Your task to perform on an android device: turn off translation in the chrome app Image 0: 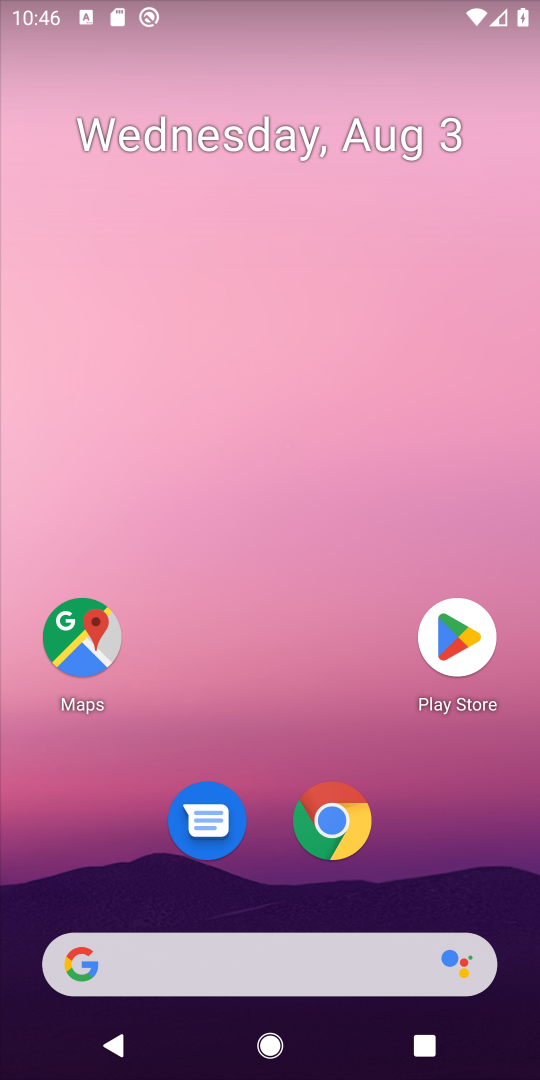
Step 0: drag from (304, 973) to (296, 154)
Your task to perform on an android device: turn off translation in the chrome app Image 1: 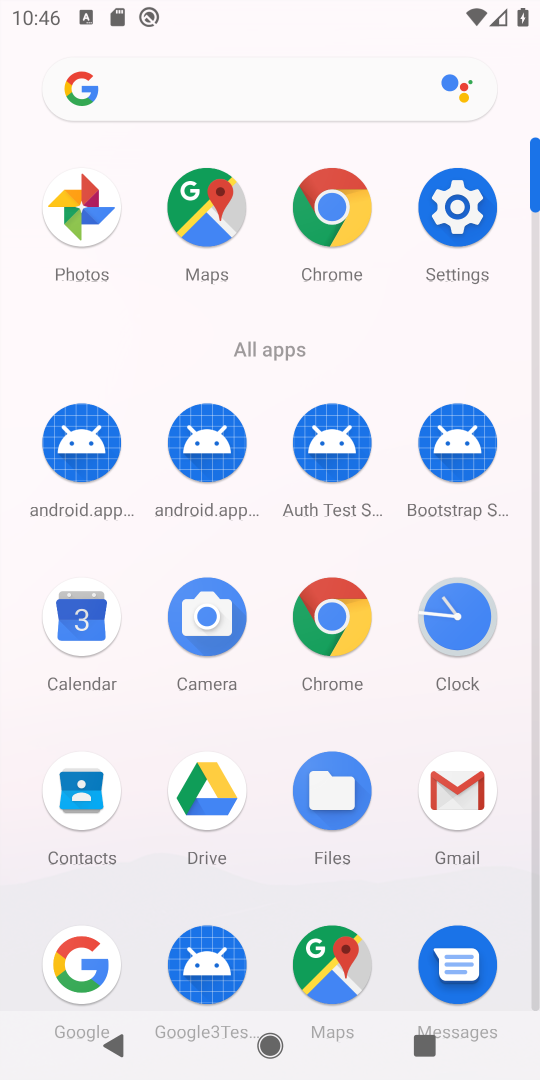
Step 1: click (320, 625)
Your task to perform on an android device: turn off translation in the chrome app Image 2: 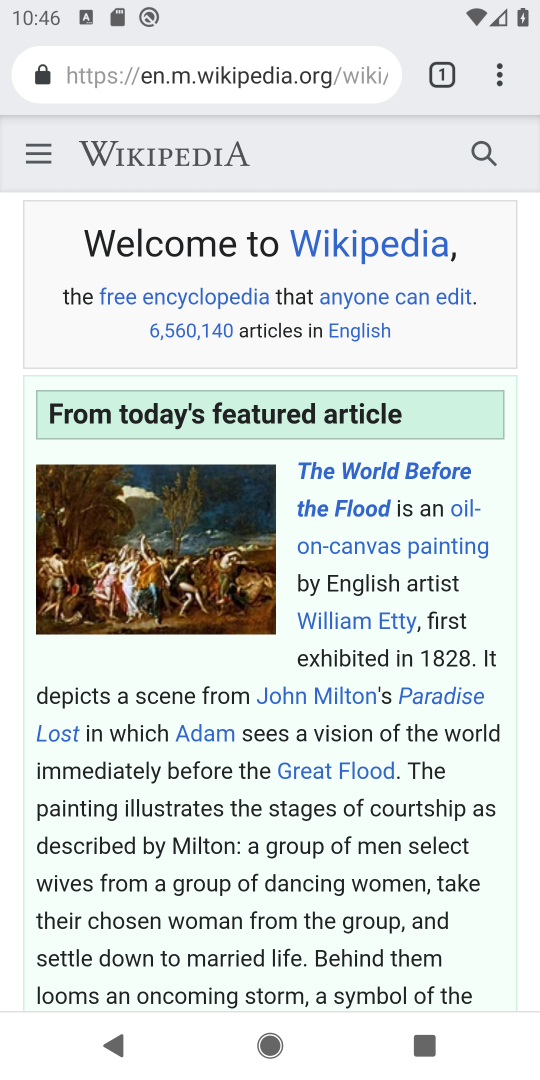
Step 2: click (491, 62)
Your task to perform on an android device: turn off translation in the chrome app Image 3: 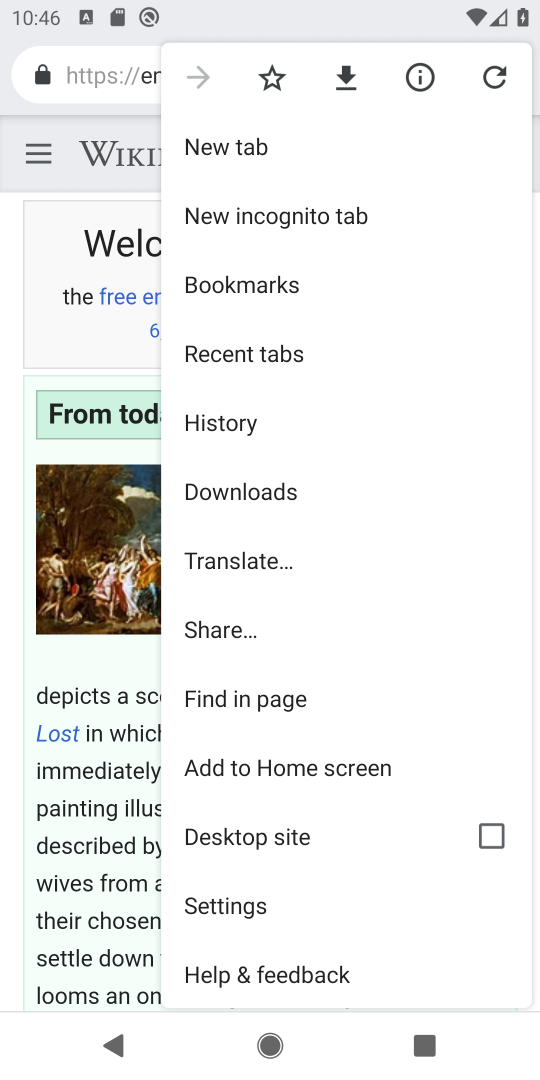
Step 3: click (223, 887)
Your task to perform on an android device: turn off translation in the chrome app Image 4: 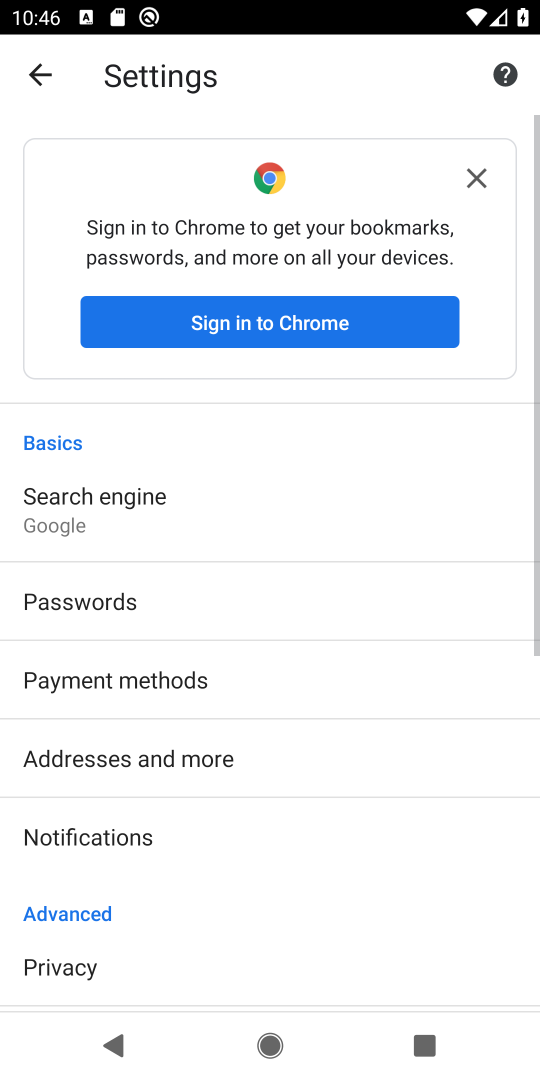
Step 4: drag from (115, 963) to (196, 378)
Your task to perform on an android device: turn off translation in the chrome app Image 5: 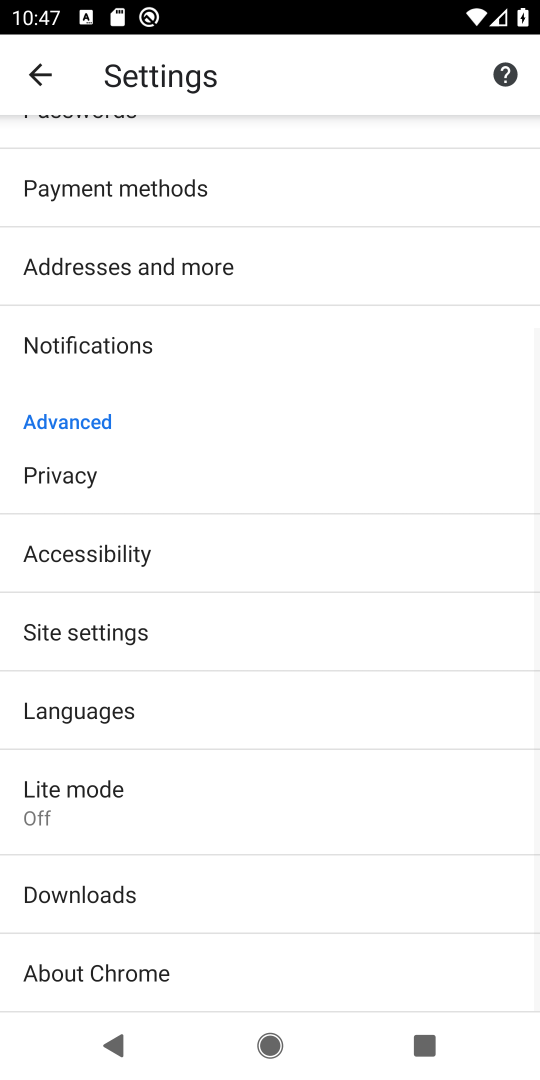
Step 5: click (100, 716)
Your task to perform on an android device: turn off translation in the chrome app Image 6: 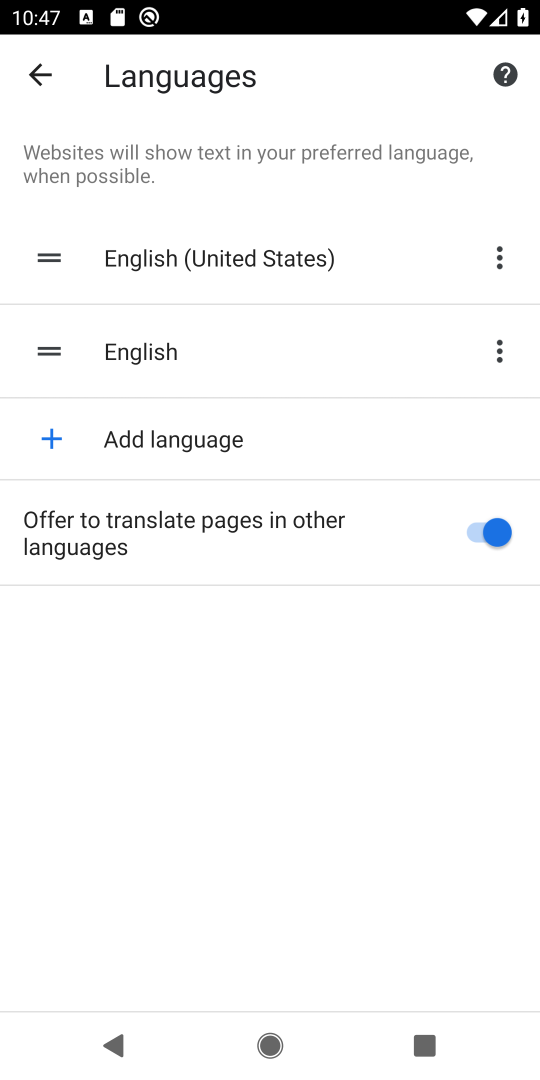
Step 6: click (484, 521)
Your task to perform on an android device: turn off translation in the chrome app Image 7: 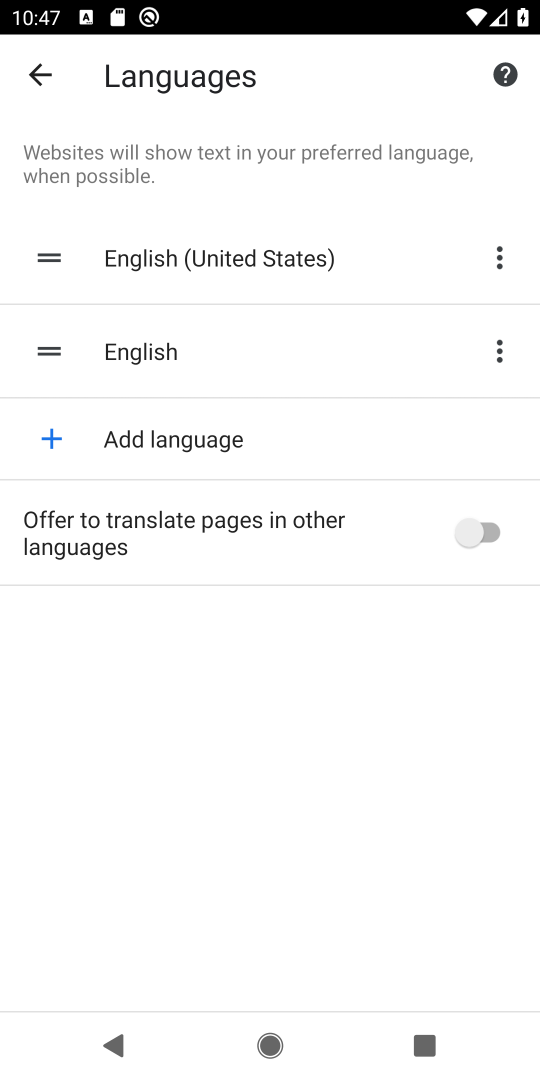
Step 7: task complete